Your task to perform on an android device: Go to accessibility settings Image 0: 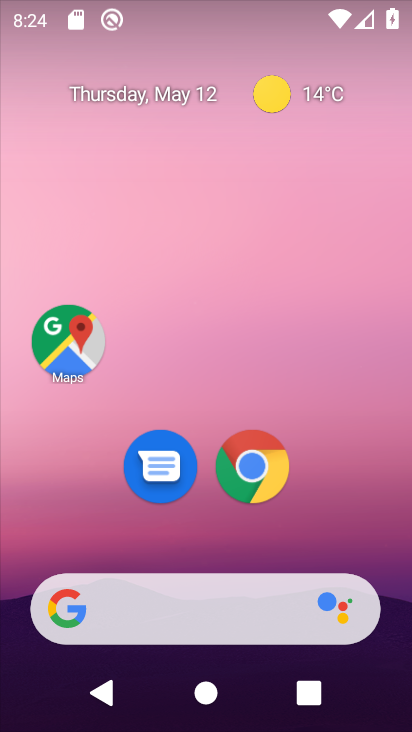
Step 0: drag from (205, 537) to (206, 85)
Your task to perform on an android device: Go to accessibility settings Image 1: 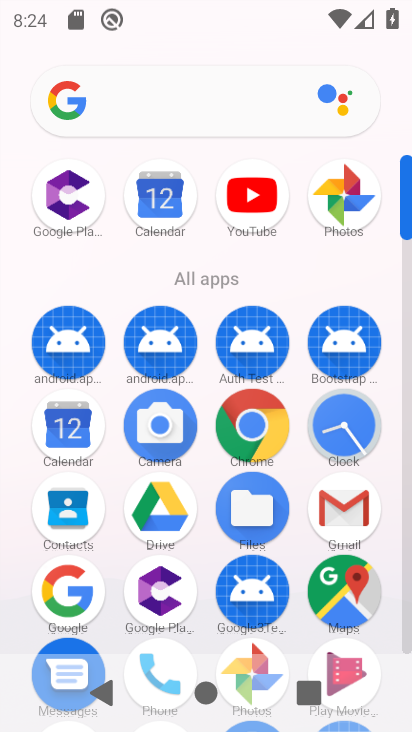
Step 1: drag from (204, 623) to (216, 191)
Your task to perform on an android device: Go to accessibility settings Image 2: 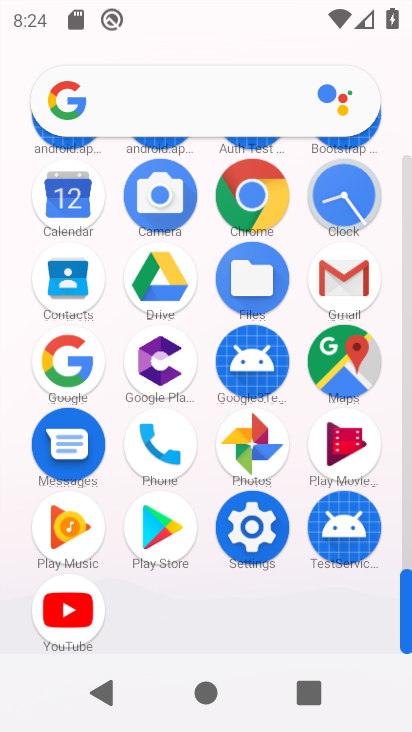
Step 2: click (249, 519)
Your task to perform on an android device: Go to accessibility settings Image 3: 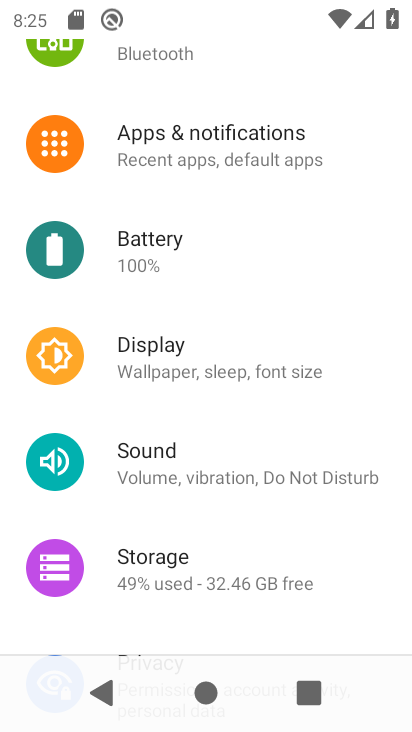
Step 3: drag from (212, 612) to (241, 189)
Your task to perform on an android device: Go to accessibility settings Image 4: 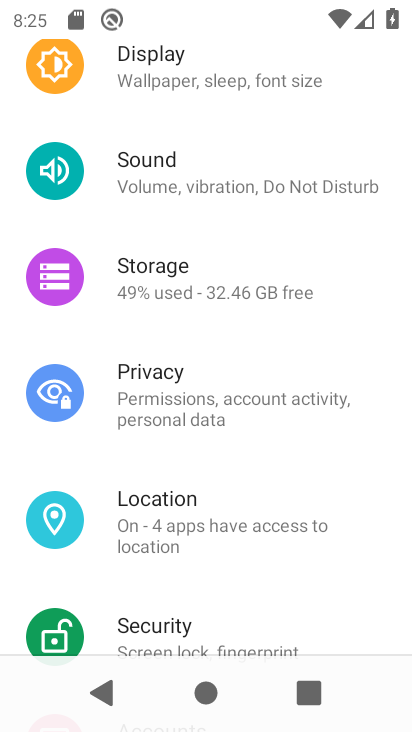
Step 4: drag from (243, 103) to (247, 55)
Your task to perform on an android device: Go to accessibility settings Image 5: 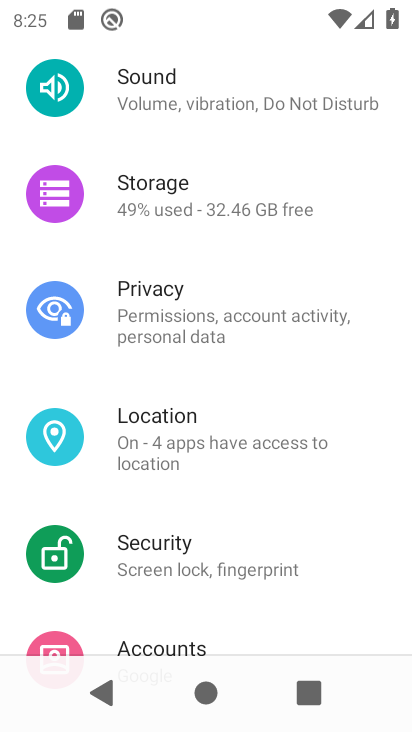
Step 5: drag from (212, 620) to (233, 83)
Your task to perform on an android device: Go to accessibility settings Image 6: 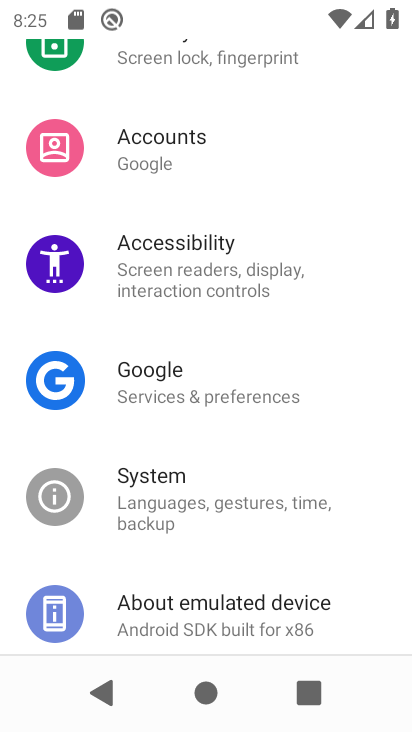
Step 6: click (261, 253)
Your task to perform on an android device: Go to accessibility settings Image 7: 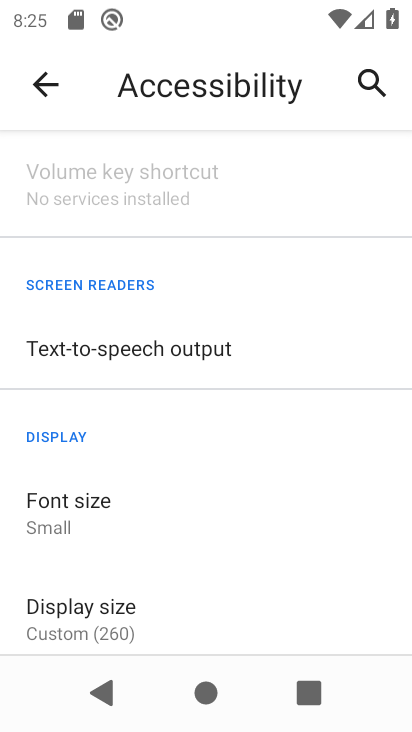
Step 7: task complete